Your task to perform on an android device: set the stopwatch Image 0: 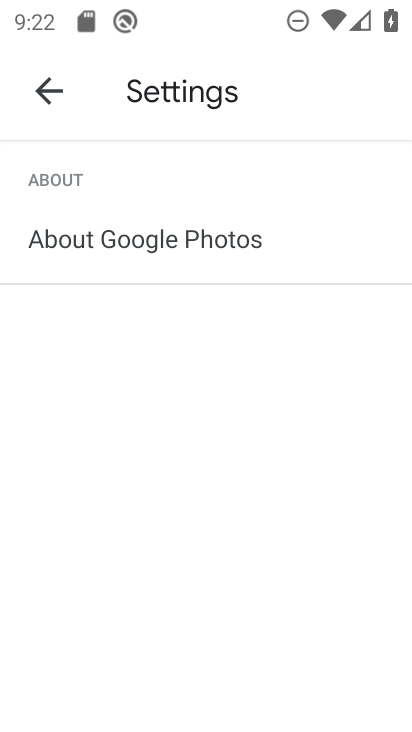
Step 0: press home button
Your task to perform on an android device: set the stopwatch Image 1: 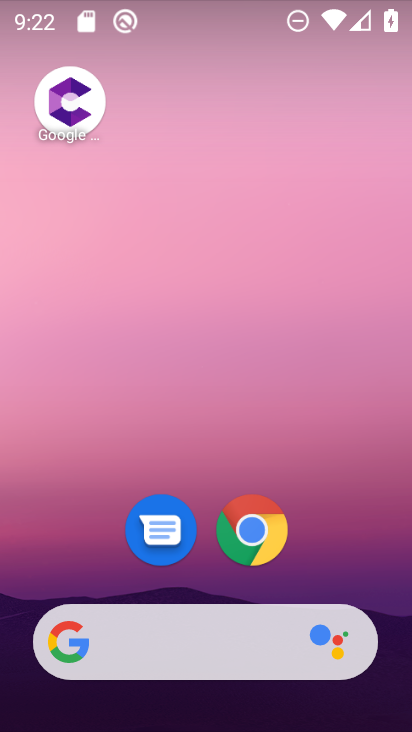
Step 1: drag from (395, 601) to (373, 3)
Your task to perform on an android device: set the stopwatch Image 2: 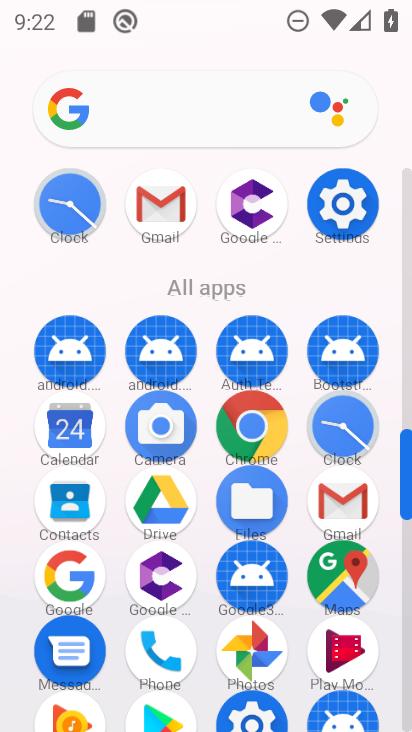
Step 2: click (67, 210)
Your task to perform on an android device: set the stopwatch Image 3: 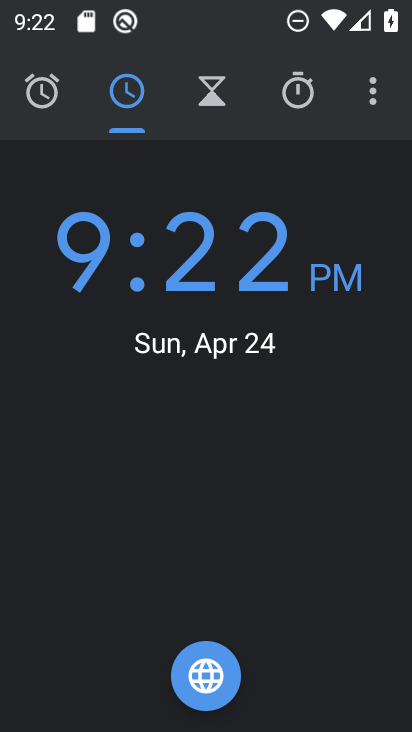
Step 3: click (290, 99)
Your task to perform on an android device: set the stopwatch Image 4: 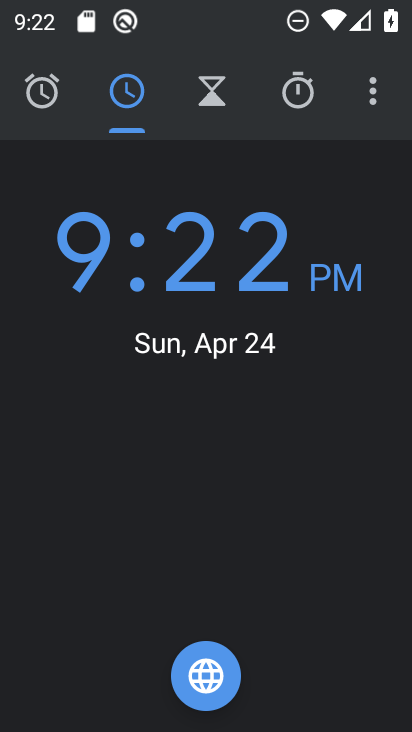
Step 4: click (297, 94)
Your task to perform on an android device: set the stopwatch Image 5: 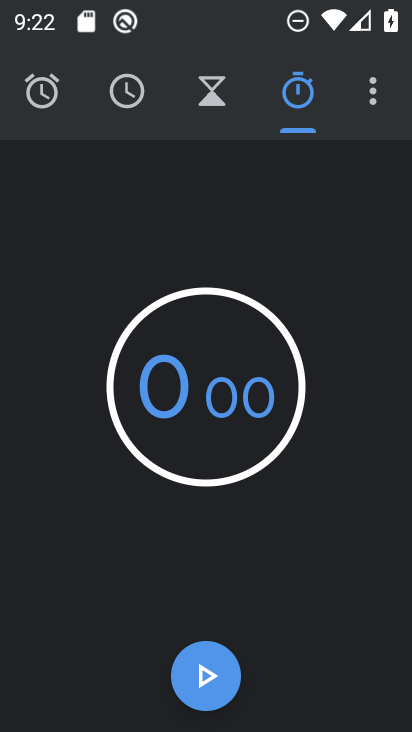
Step 5: click (204, 678)
Your task to perform on an android device: set the stopwatch Image 6: 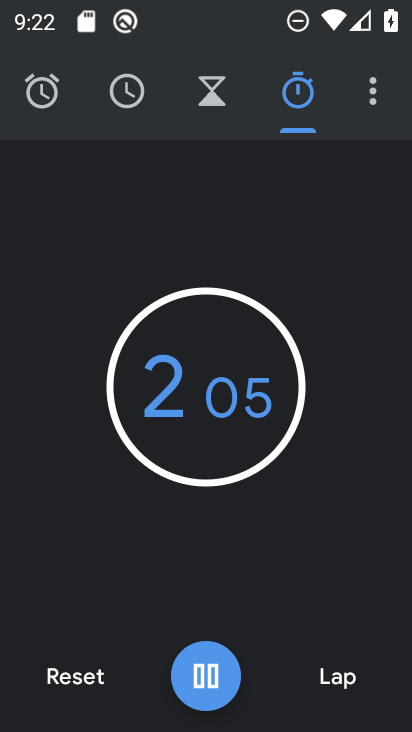
Step 6: click (204, 678)
Your task to perform on an android device: set the stopwatch Image 7: 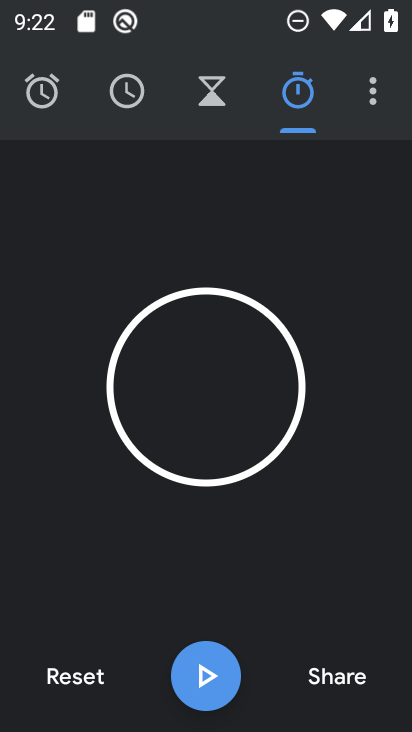
Step 7: task complete